Your task to perform on an android device: Open Chrome and go to the settings page Image 0: 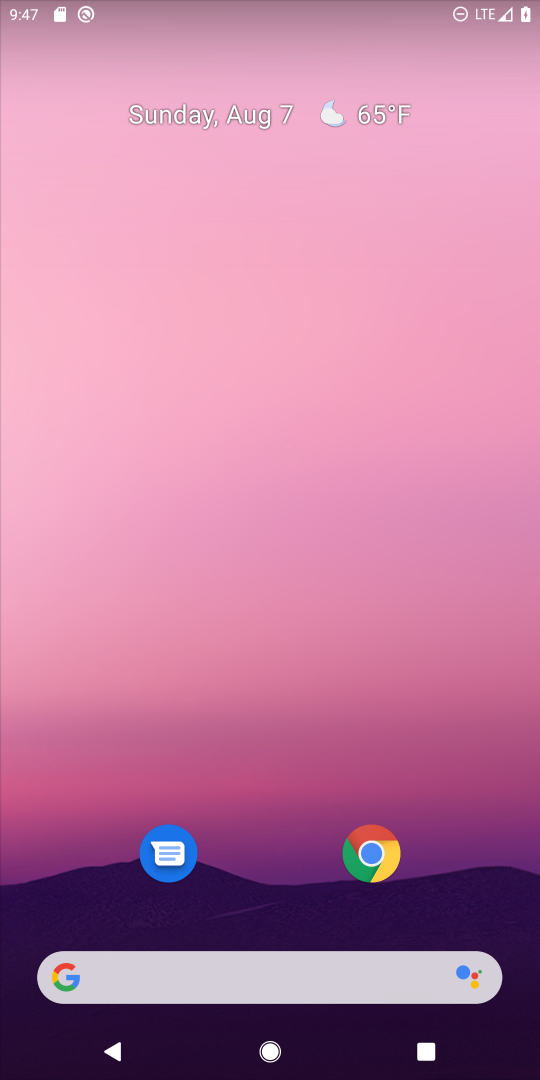
Step 0: drag from (78, 907) to (325, 134)
Your task to perform on an android device: Open Chrome and go to the settings page Image 1: 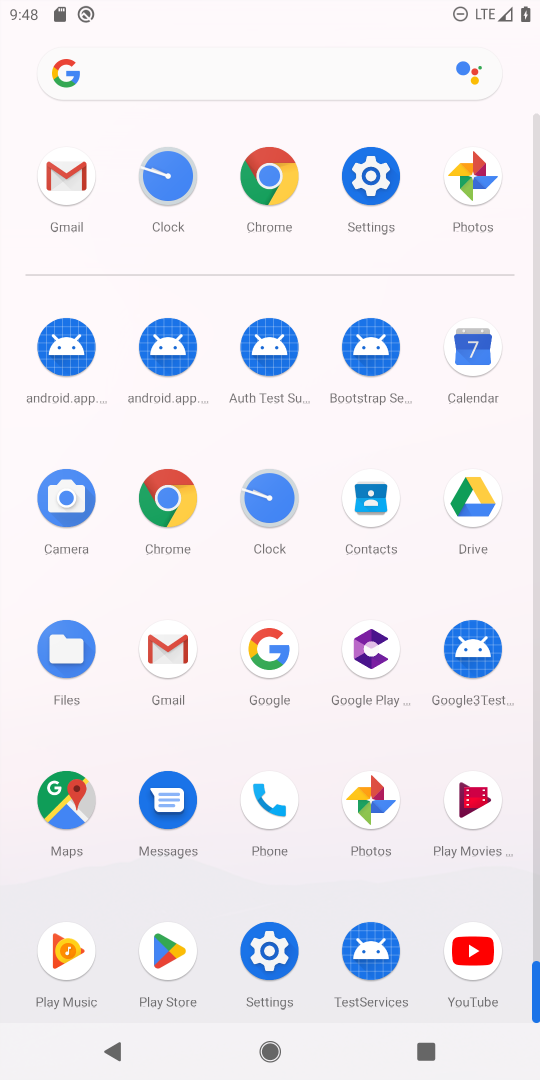
Step 1: click (270, 155)
Your task to perform on an android device: Open Chrome and go to the settings page Image 2: 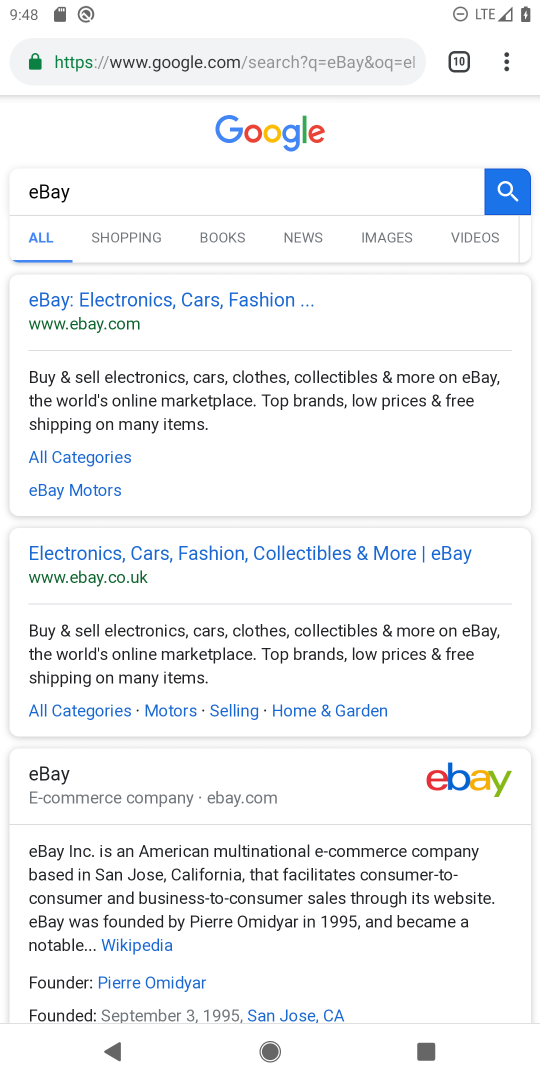
Step 2: click (510, 61)
Your task to perform on an android device: Open Chrome and go to the settings page Image 3: 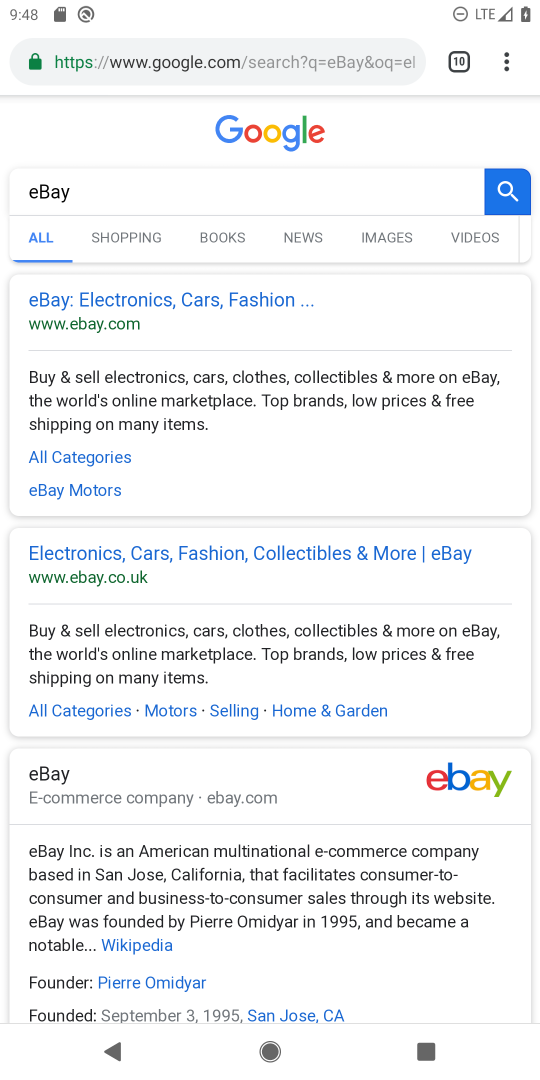
Step 3: click (505, 64)
Your task to perform on an android device: Open Chrome and go to the settings page Image 4: 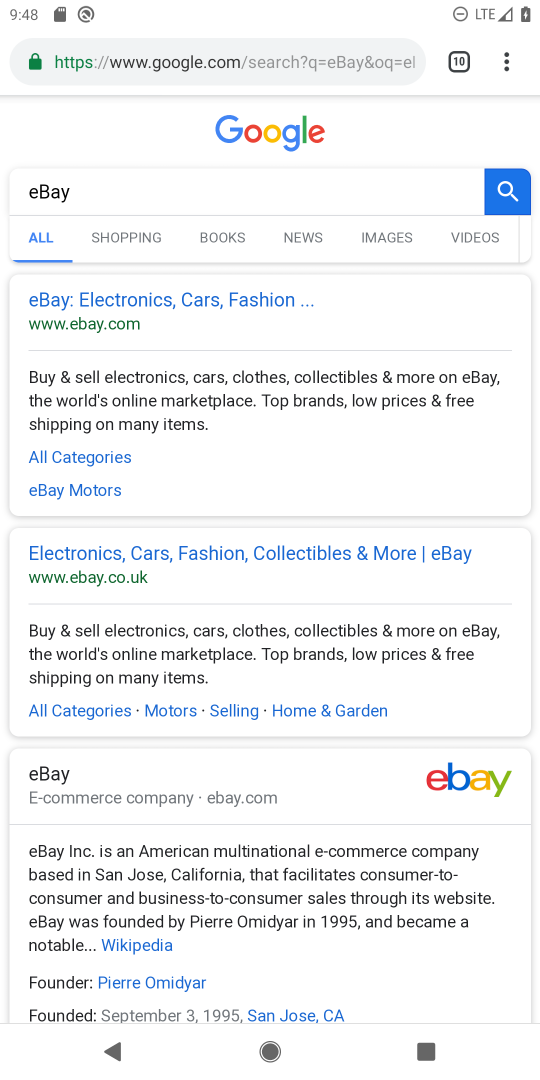
Step 4: click (505, 64)
Your task to perform on an android device: Open Chrome and go to the settings page Image 5: 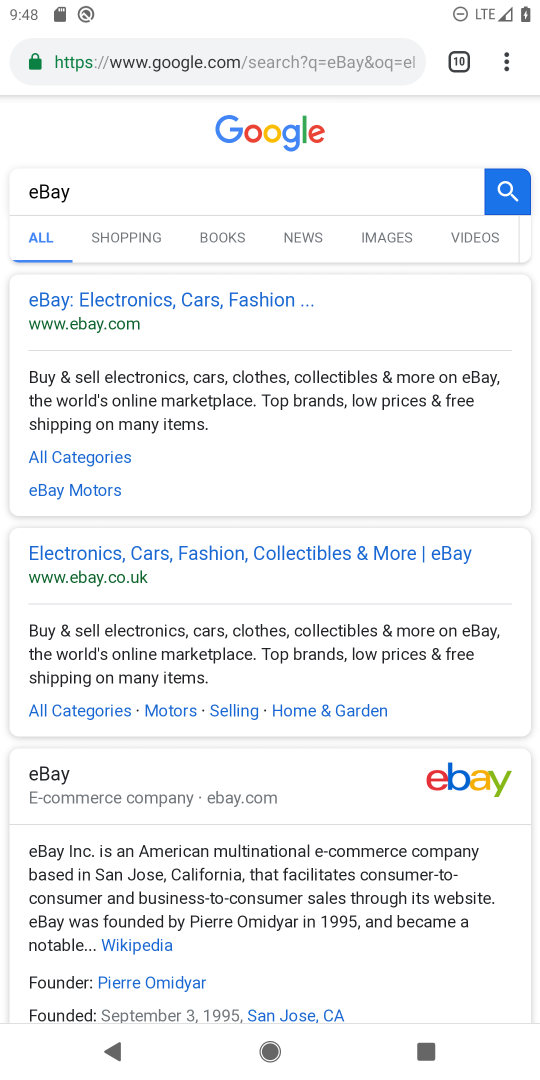
Step 5: click (504, 67)
Your task to perform on an android device: Open Chrome and go to the settings page Image 6: 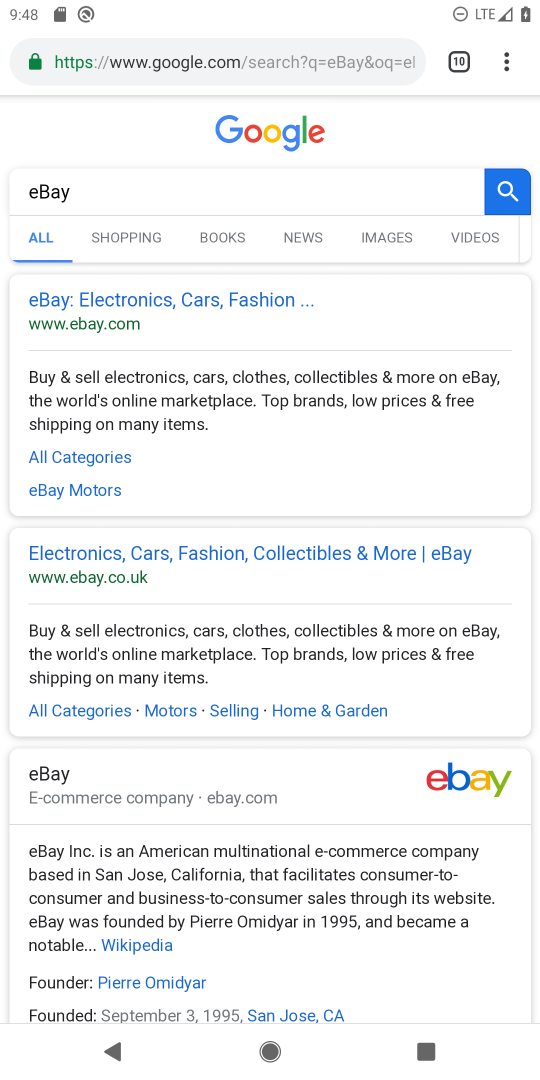
Step 6: click (503, 53)
Your task to perform on an android device: Open Chrome and go to the settings page Image 7: 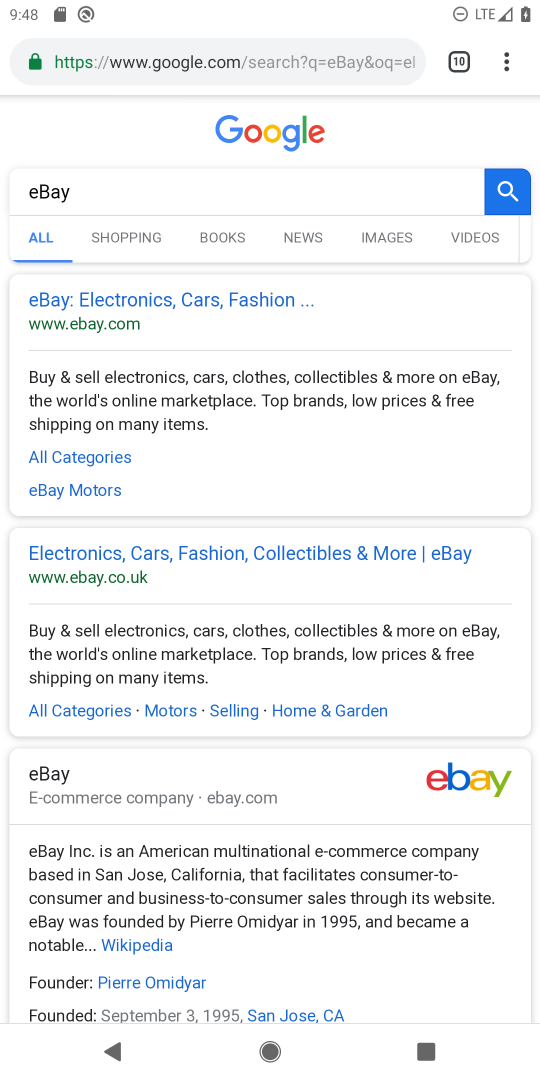
Step 7: click (497, 68)
Your task to perform on an android device: Open Chrome and go to the settings page Image 8: 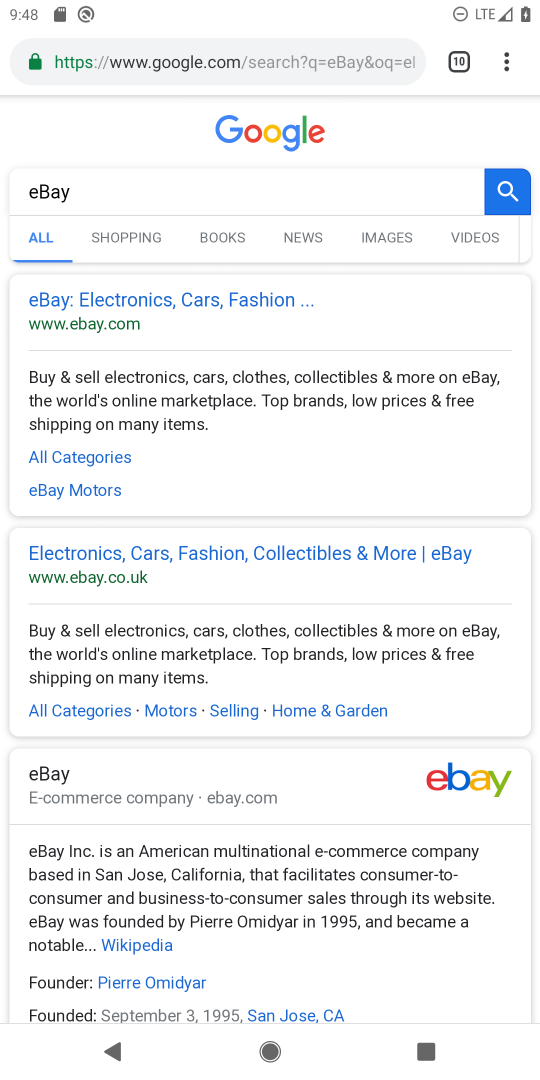
Step 8: click (497, 70)
Your task to perform on an android device: Open Chrome and go to the settings page Image 9: 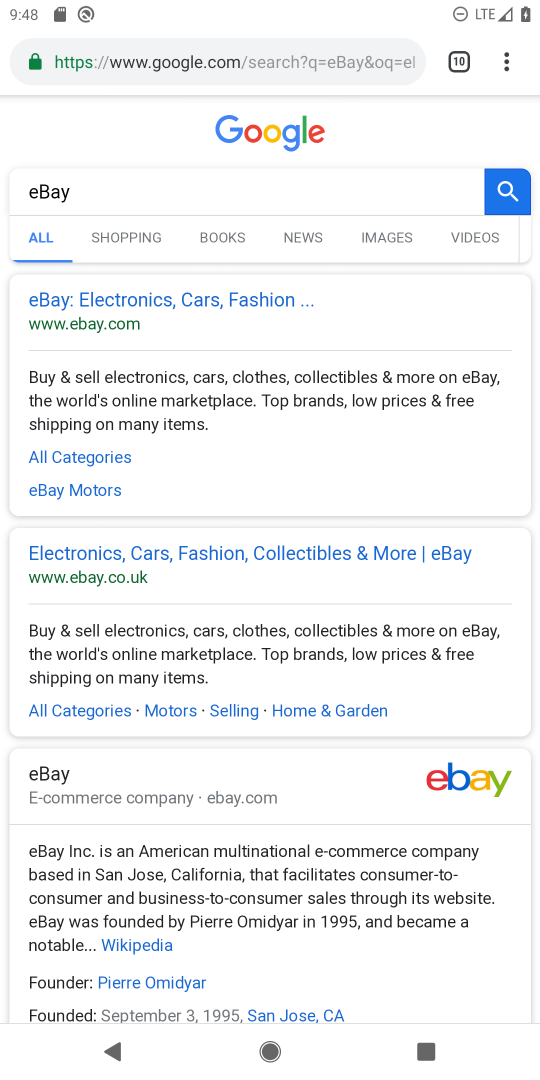
Step 9: click (506, 43)
Your task to perform on an android device: Open Chrome and go to the settings page Image 10: 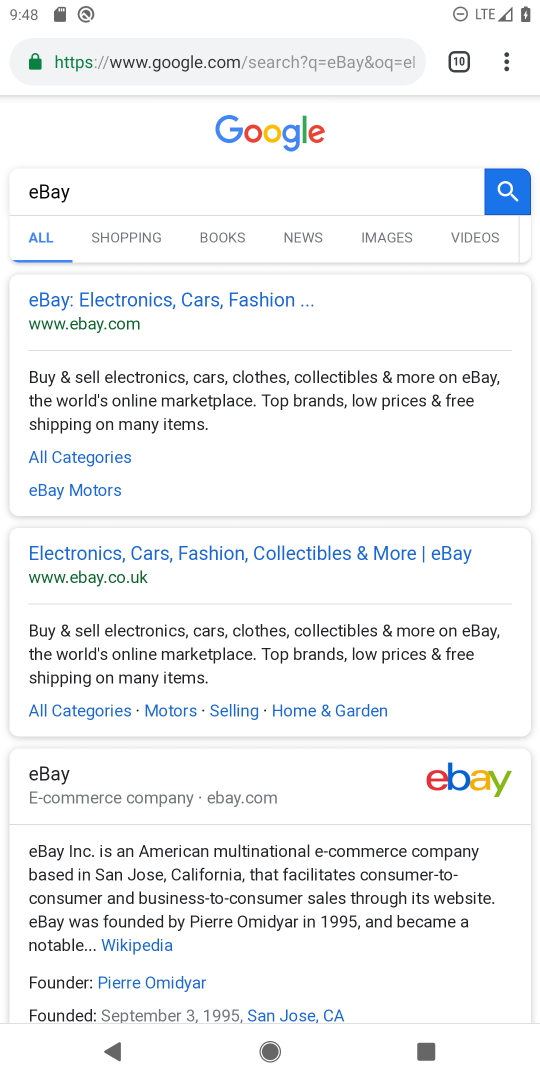
Step 10: click (517, 72)
Your task to perform on an android device: Open Chrome and go to the settings page Image 11: 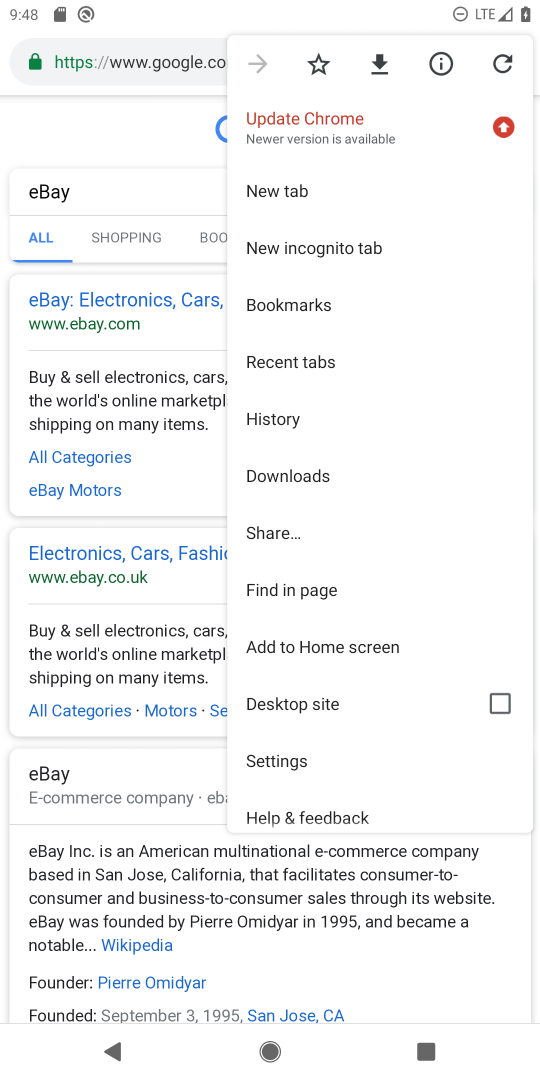
Step 11: click (320, 760)
Your task to perform on an android device: Open Chrome and go to the settings page Image 12: 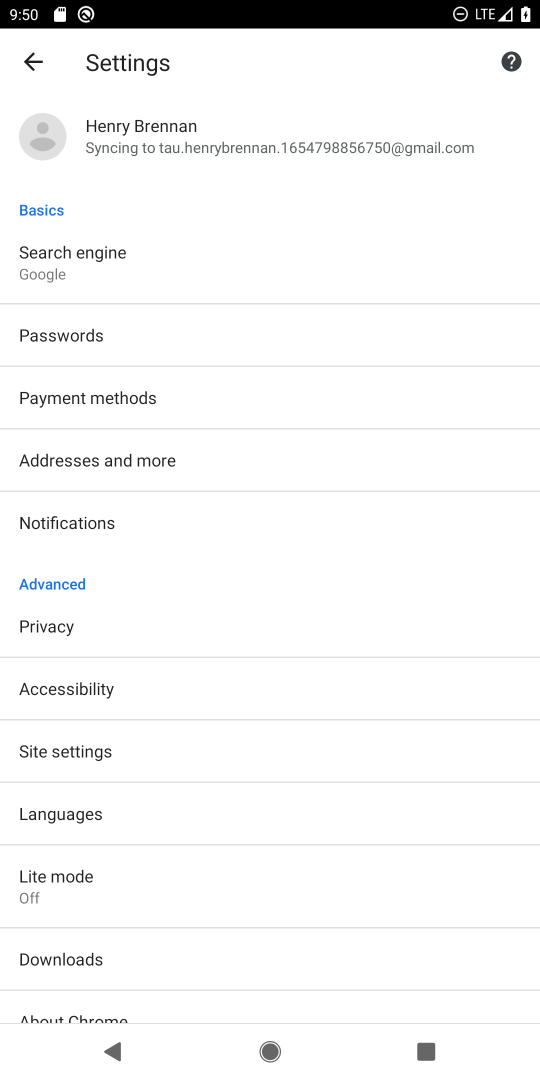
Step 12: task complete